Your task to perform on an android device: install app "Microsoft Outlook" Image 0: 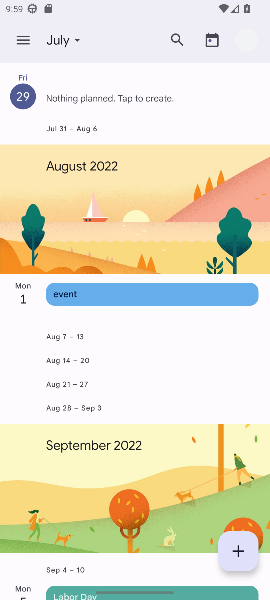
Step 0: press home button
Your task to perform on an android device: install app "Microsoft Outlook" Image 1: 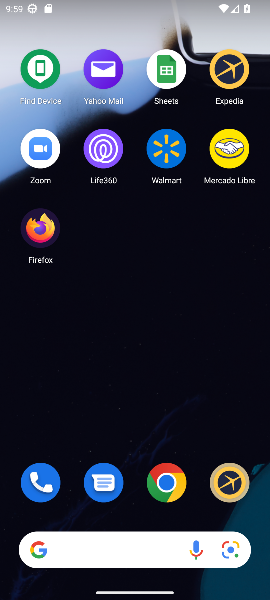
Step 1: press home button
Your task to perform on an android device: install app "Microsoft Outlook" Image 2: 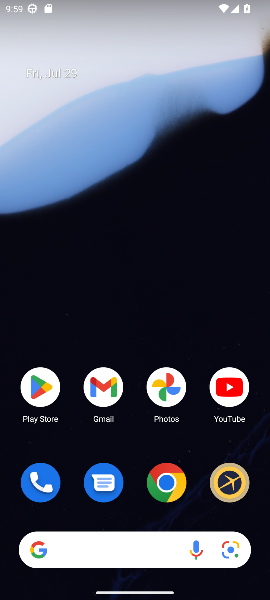
Step 2: press home button
Your task to perform on an android device: install app "Microsoft Outlook" Image 3: 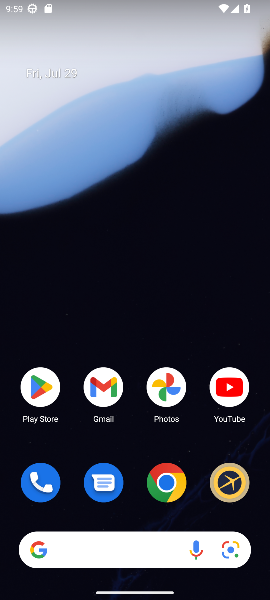
Step 3: press home button
Your task to perform on an android device: install app "Microsoft Outlook" Image 4: 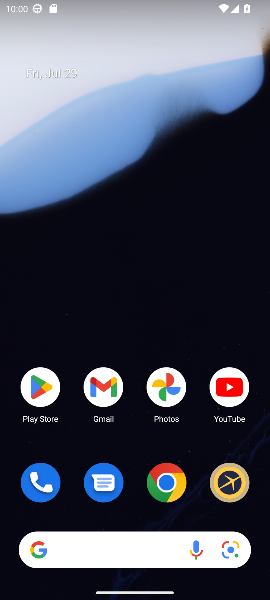
Step 4: drag from (142, 596) to (157, 126)
Your task to perform on an android device: install app "Microsoft Outlook" Image 5: 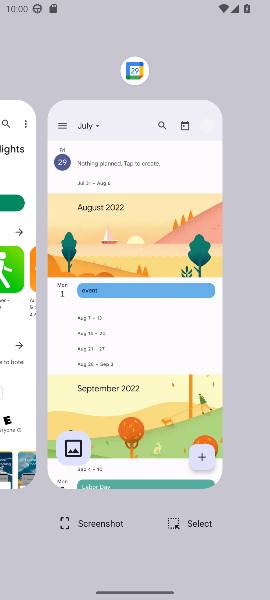
Step 5: press home button
Your task to perform on an android device: install app "Microsoft Outlook" Image 6: 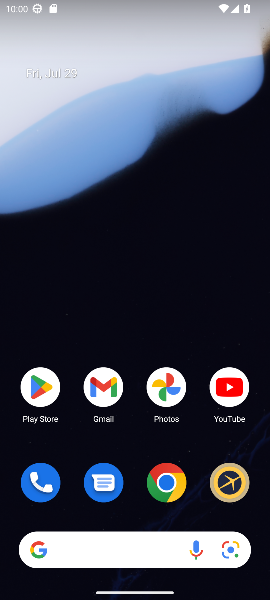
Step 6: click (36, 382)
Your task to perform on an android device: install app "Microsoft Outlook" Image 7: 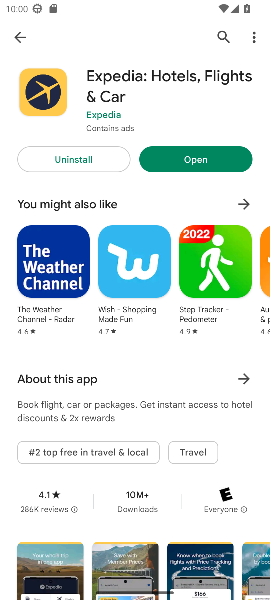
Step 7: click (219, 35)
Your task to perform on an android device: install app "Microsoft Outlook" Image 8: 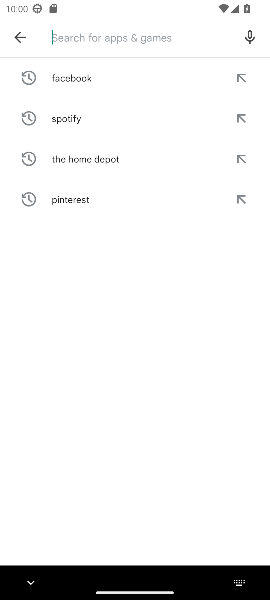
Step 8: type "Microsoft Outlook"
Your task to perform on an android device: install app "Microsoft Outlook" Image 9: 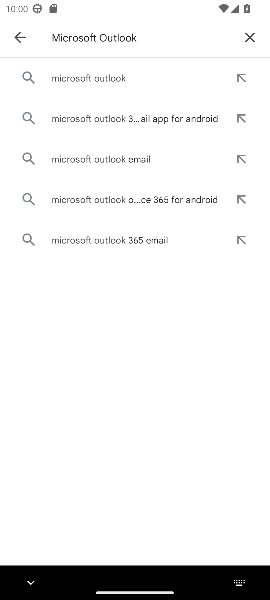
Step 9: click (92, 78)
Your task to perform on an android device: install app "Microsoft Outlook" Image 10: 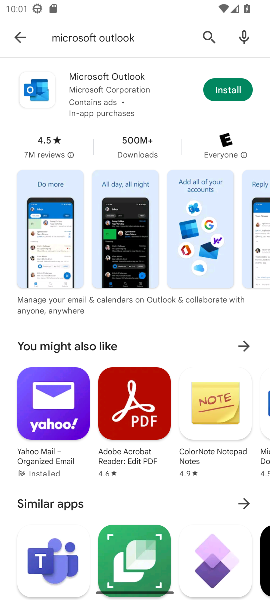
Step 10: click (230, 84)
Your task to perform on an android device: install app "Microsoft Outlook" Image 11: 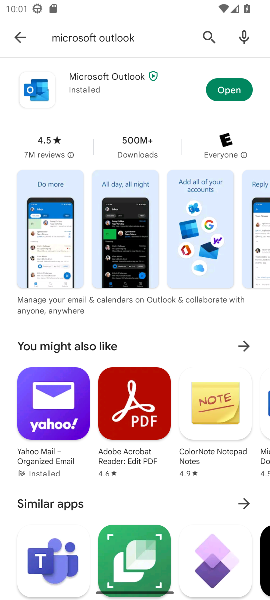
Step 11: task complete